Your task to perform on an android device: turn on priority inbox in the gmail app Image 0: 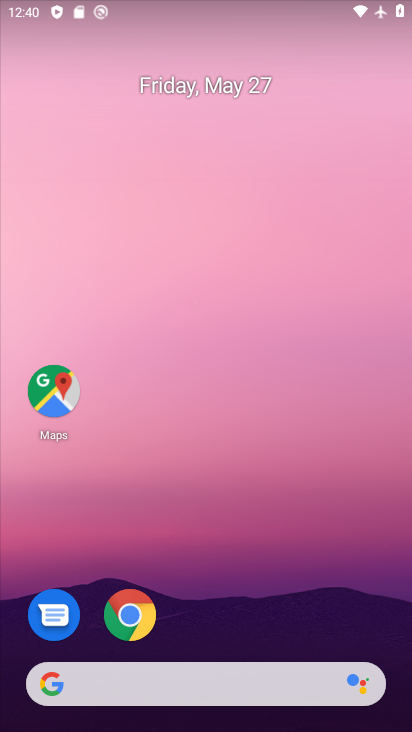
Step 0: press home button
Your task to perform on an android device: turn on priority inbox in the gmail app Image 1: 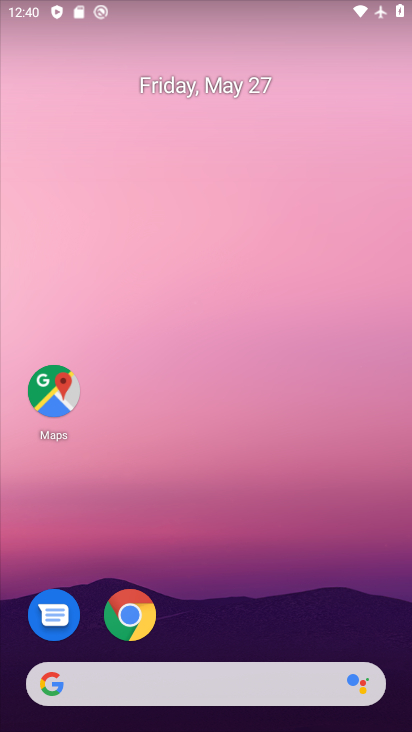
Step 1: drag from (268, 574) to (250, 213)
Your task to perform on an android device: turn on priority inbox in the gmail app Image 2: 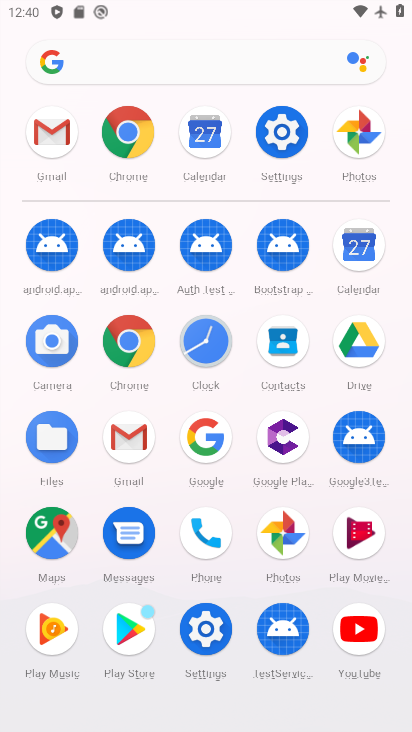
Step 2: click (47, 133)
Your task to perform on an android device: turn on priority inbox in the gmail app Image 3: 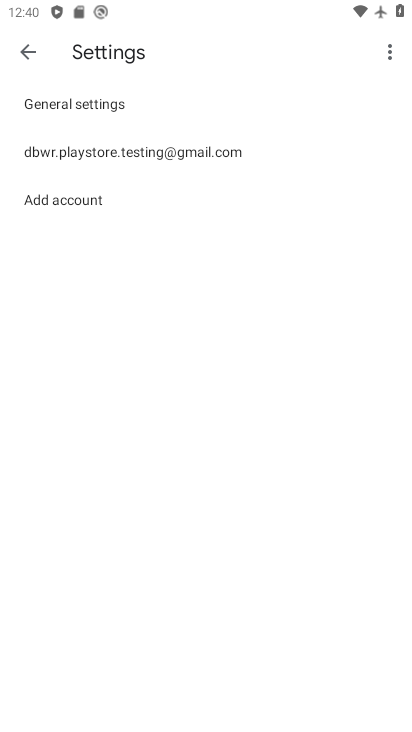
Step 3: click (141, 153)
Your task to perform on an android device: turn on priority inbox in the gmail app Image 4: 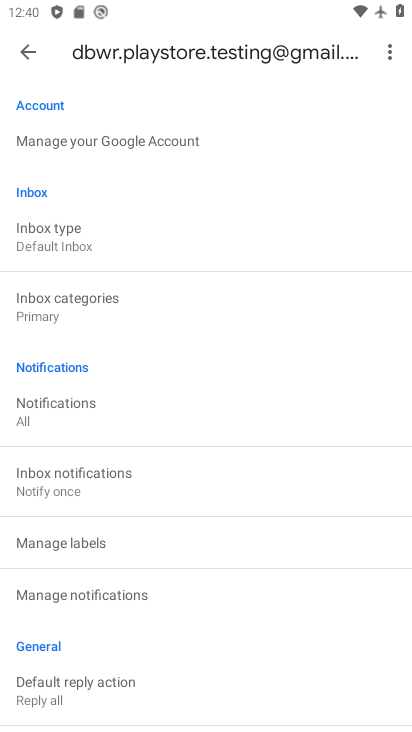
Step 4: click (53, 231)
Your task to perform on an android device: turn on priority inbox in the gmail app Image 5: 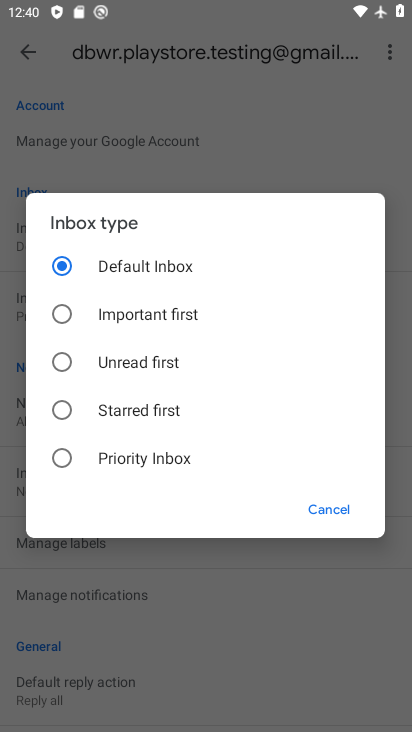
Step 5: click (63, 459)
Your task to perform on an android device: turn on priority inbox in the gmail app Image 6: 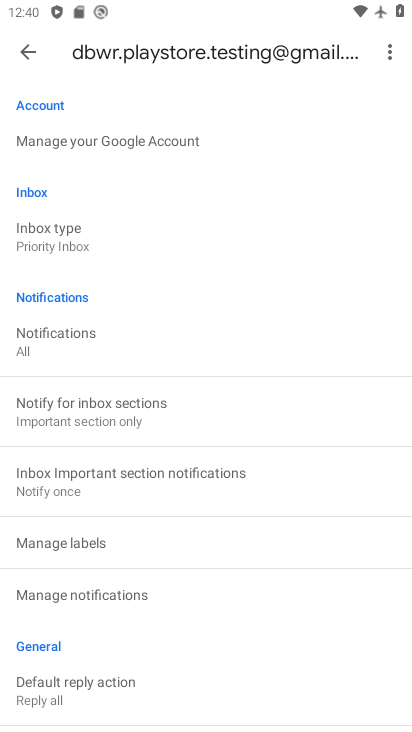
Step 6: task complete